Your task to perform on an android device: open a new tab in the chrome app Image 0: 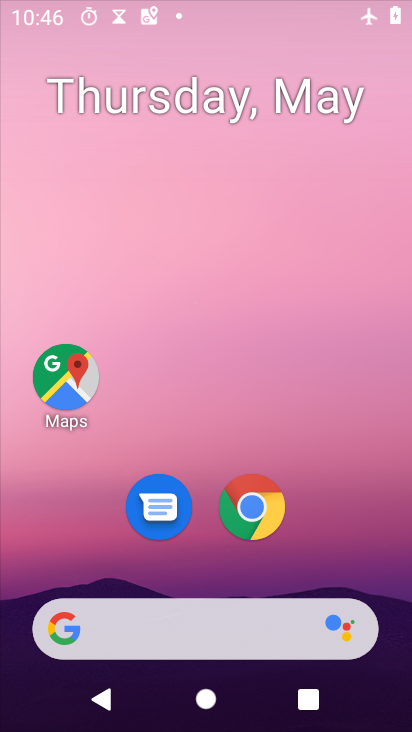
Step 0: drag from (348, 520) to (242, 2)
Your task to perform on an android device: open a new tab in the chrome app Image 1: 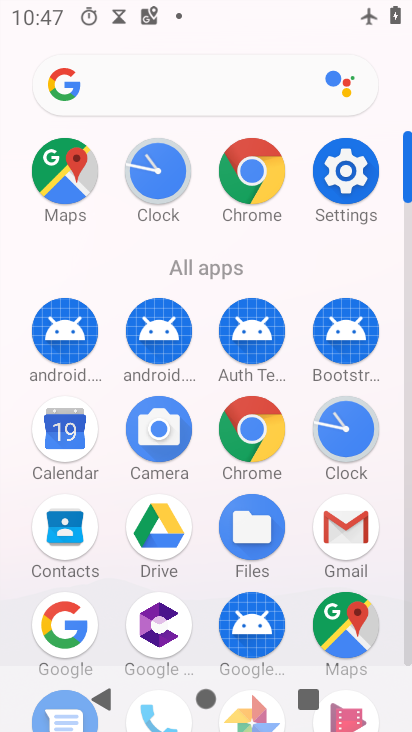
Step 1: drag from (14, 549) to (7, 196)
Your task to perform on an android device: open a new tab in the chrome app Image 2: 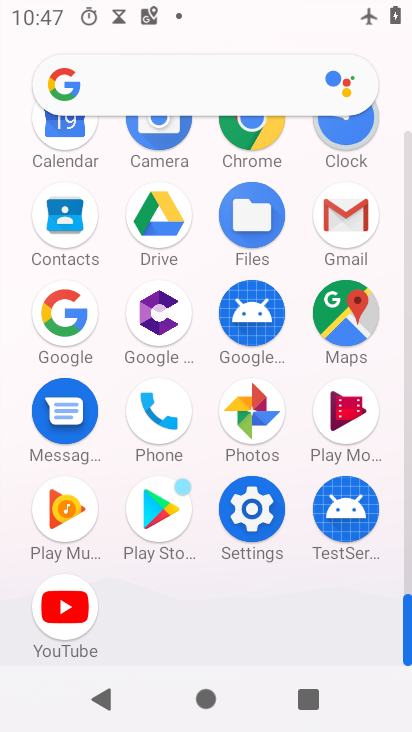
Step 2: click (248, 118)
Your task to perform on an android device: open a new tab in the chrome app Image 3: 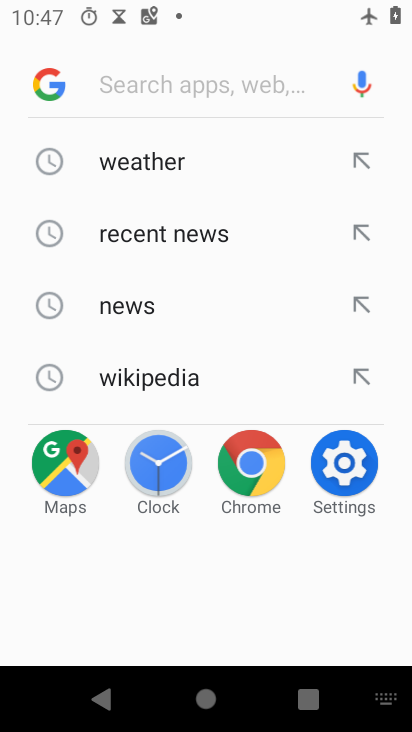
Step 3: press back button
Your task to perform on an android device: open a new tab in the chrome app Image 4: 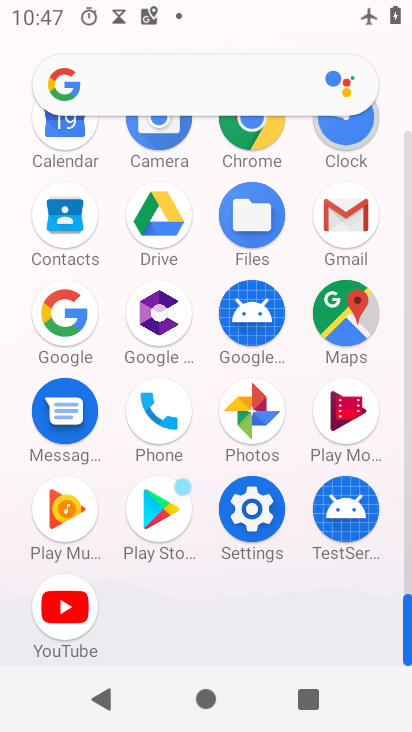
Step 4: drag from (17, 217) to (11, 421)
Your task to perform on an android device: open a new tab in the chrome app Image 5: 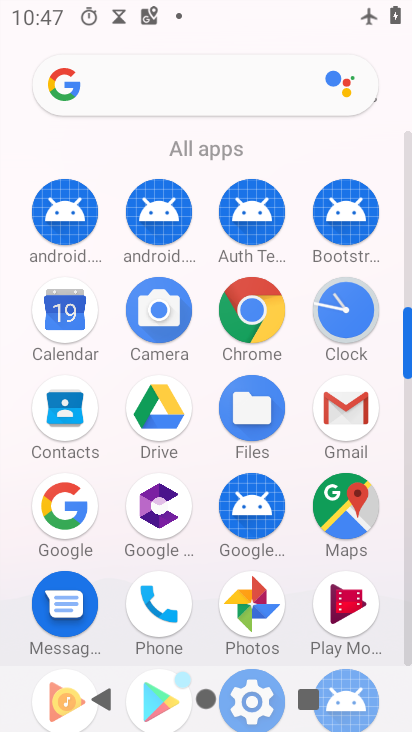
Step 5: click (244, 306)
Your task to perform on an android device: open a new tab in the chrome app Image 6: 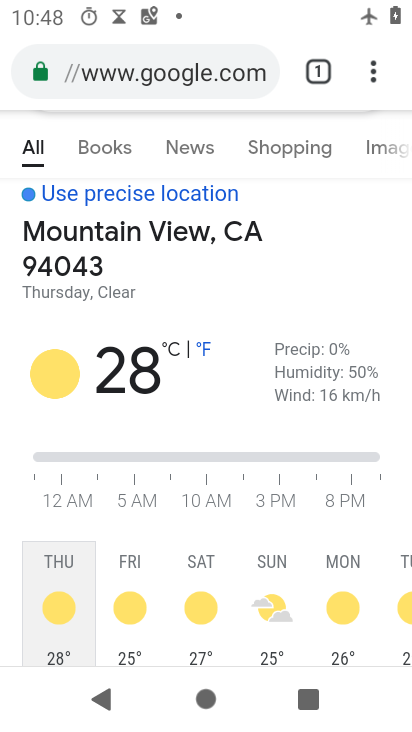
Step 6: task complete